Your task to perform on an android device: toggle translation in the chrome app Image 0: 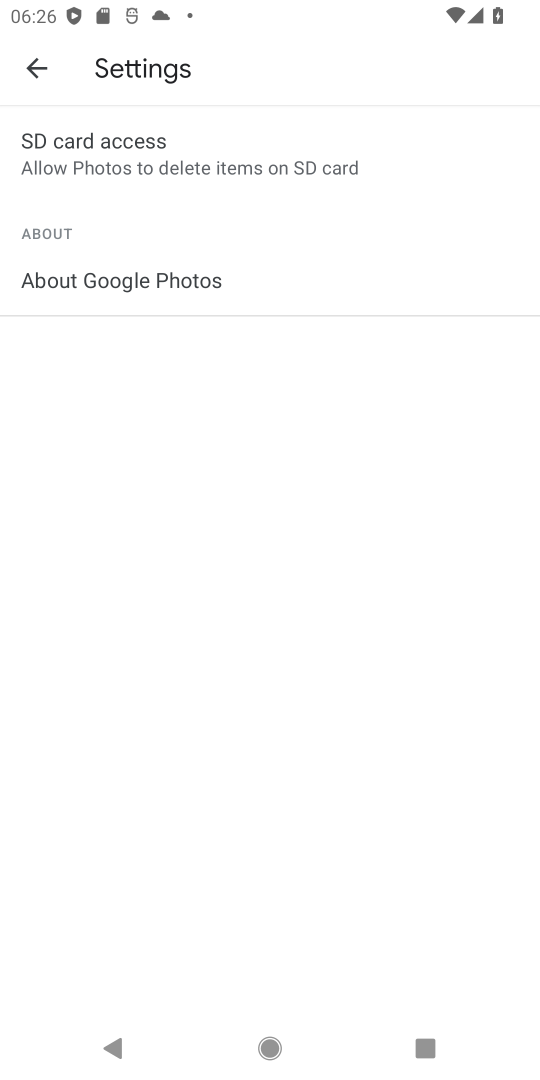
Step 0: press home button
Your task to perform on an android device: toggle translation in the chrome app Image 1: 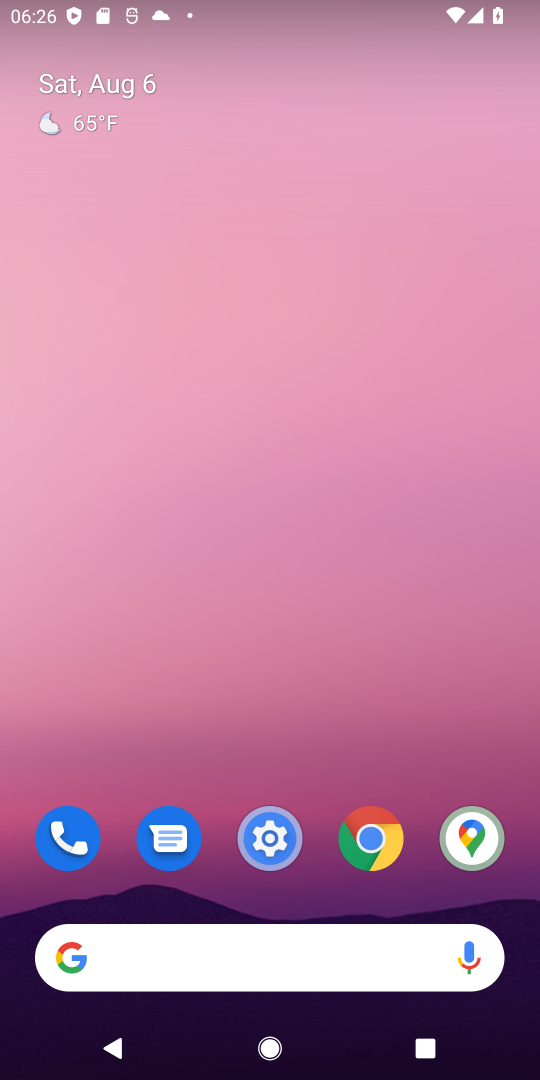
Step 1: drag from (225, 377) to (222, 197)
Your task to perform on an android device: toggle translation in the chrome app Image 2: 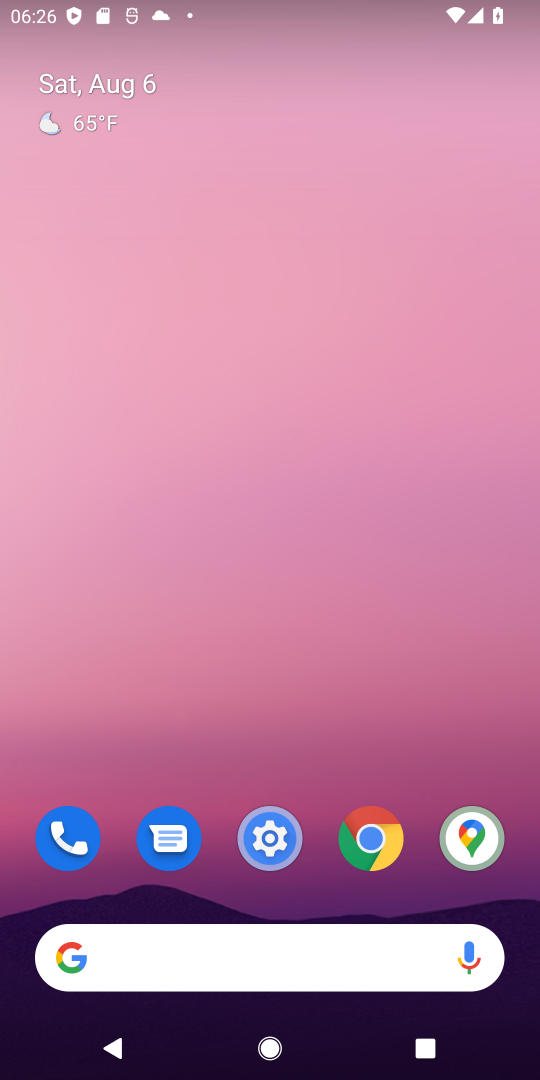
Step 2: drag from (332, 639) to (355, 26)
Your task to perform on an android device: toggle translation in the chrome app Image 3: 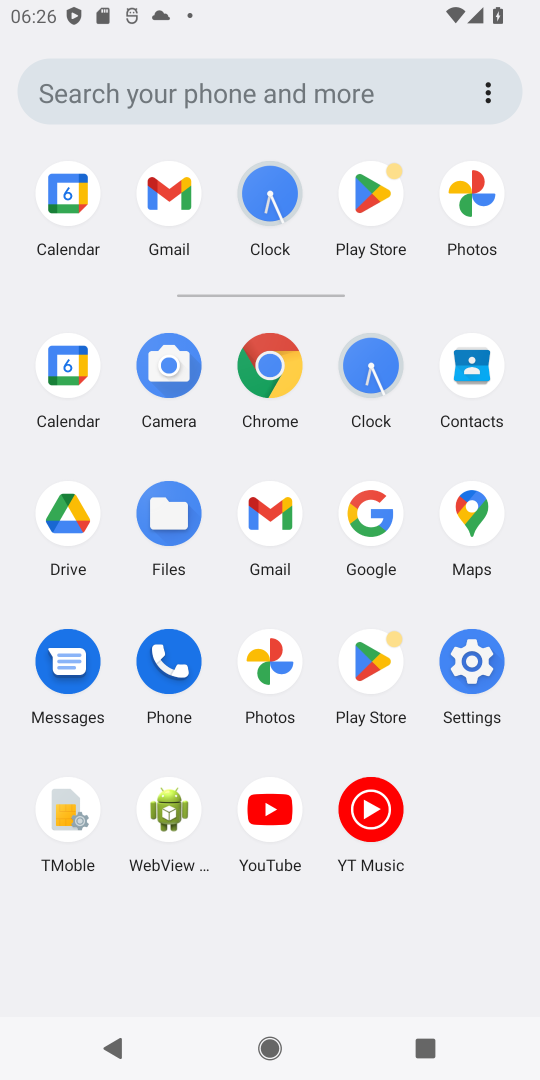
Step 3: click (277, 382)
Your task to perform on an android device: toggle translation in the chrome app Image 4: 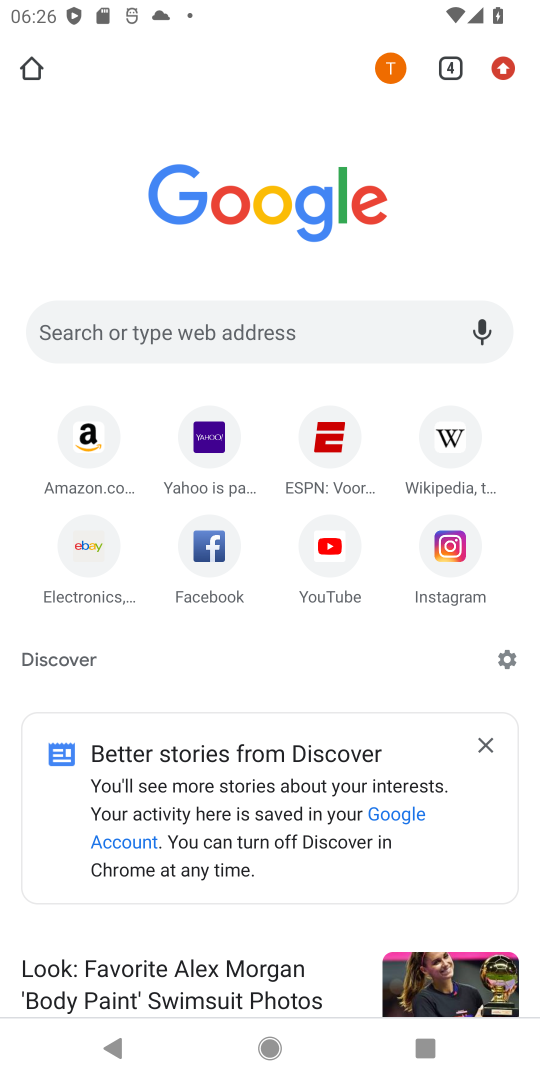
Step 4: click (510, 76)
Your task to perform on an android device: toggle translation in the chrome app Image 5: 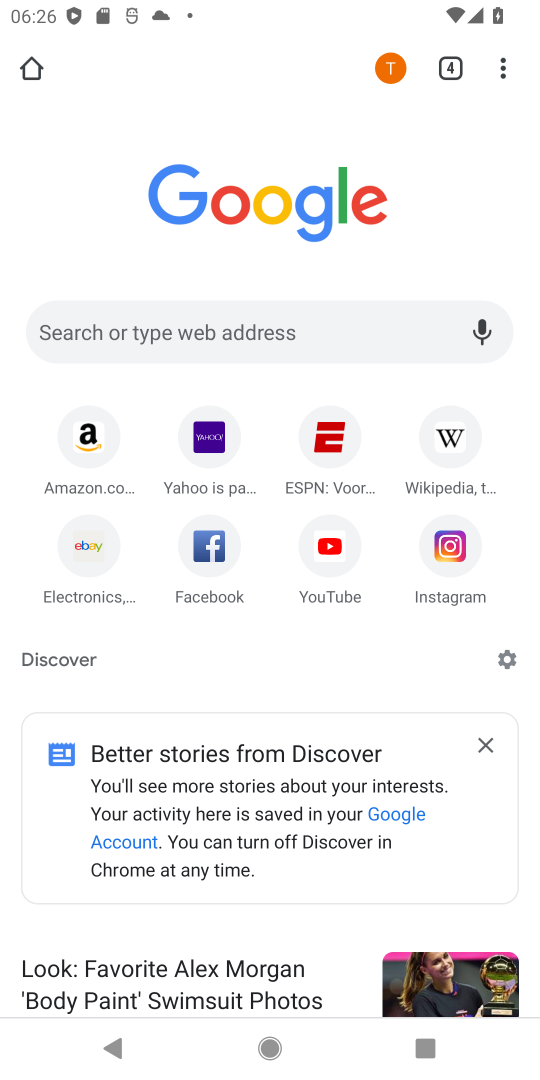
Step 5: click (503, 77)
Your task to perform on an android device: toggle translation in the chrome app Image 6: 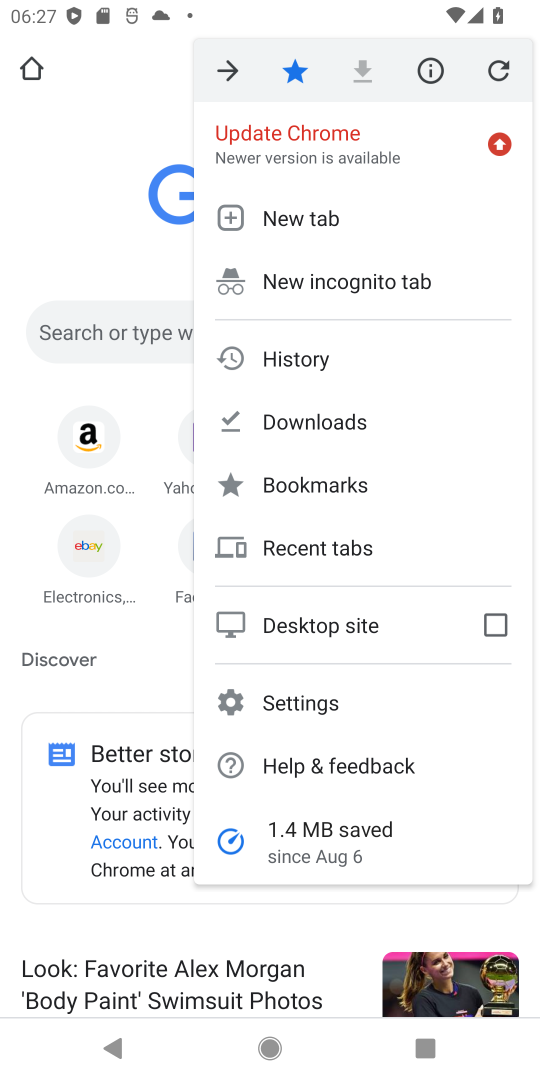
Step 6: click (291, 691)
Your task to perform on an android device: toggle translation in the chrome app Image 7: 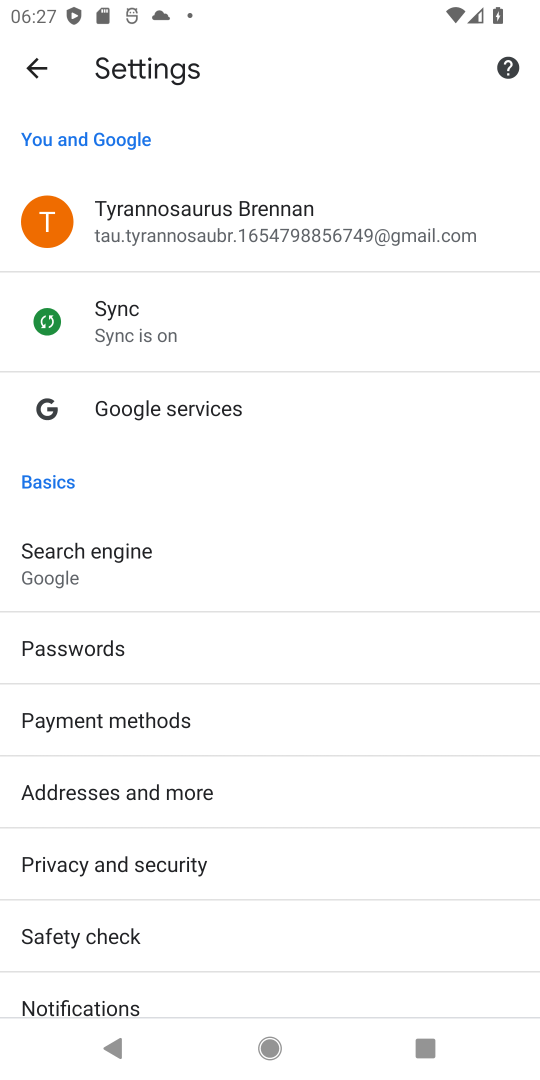
Step 7: drag from (286, 909) to (286, 344)
Your task to perform on an android device: toggle translation in the chrome app Image 8: 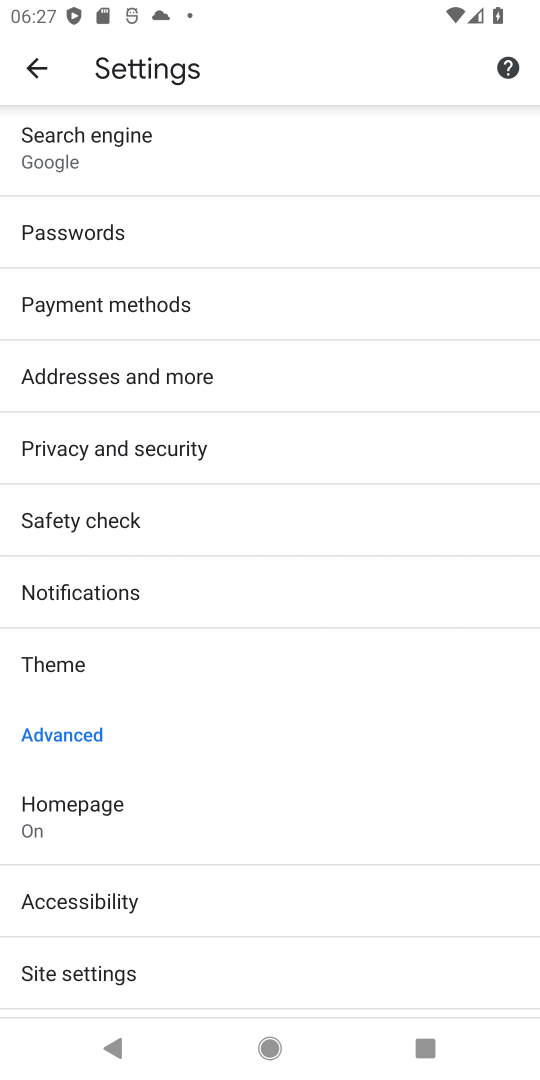
Step 8: drag from (221, 664) to (266, 293)
Your task to perform on an android device: toggle translation in the chrome app Image 9: 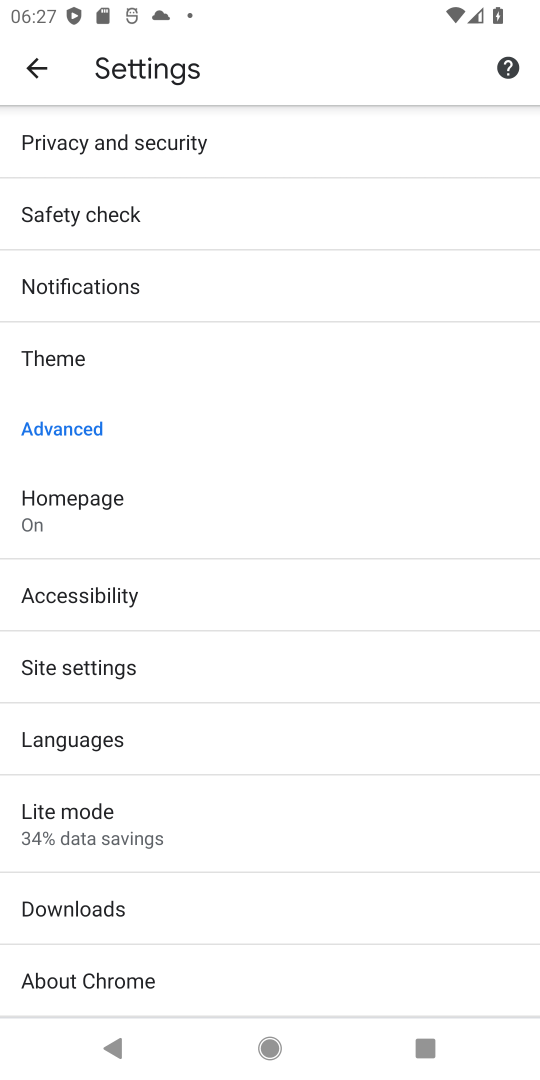
Step 9: click (114, 747)
Your task to perform on an android device: toggle translation in the chrome app Image 10: 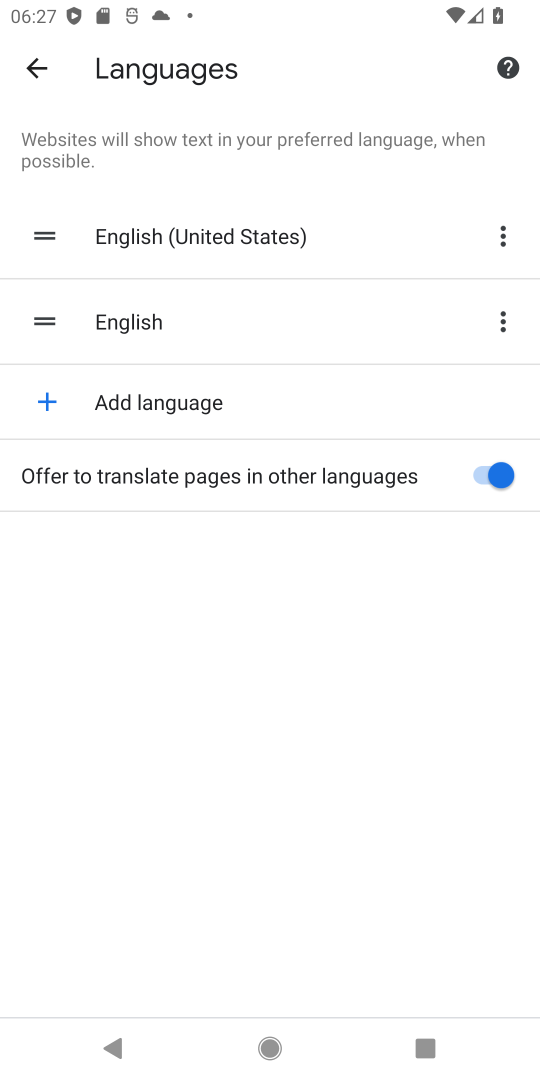
Step 10: click (503, 486)
Your task to perform on an android device: toggle translation in the chrome app Image 11: 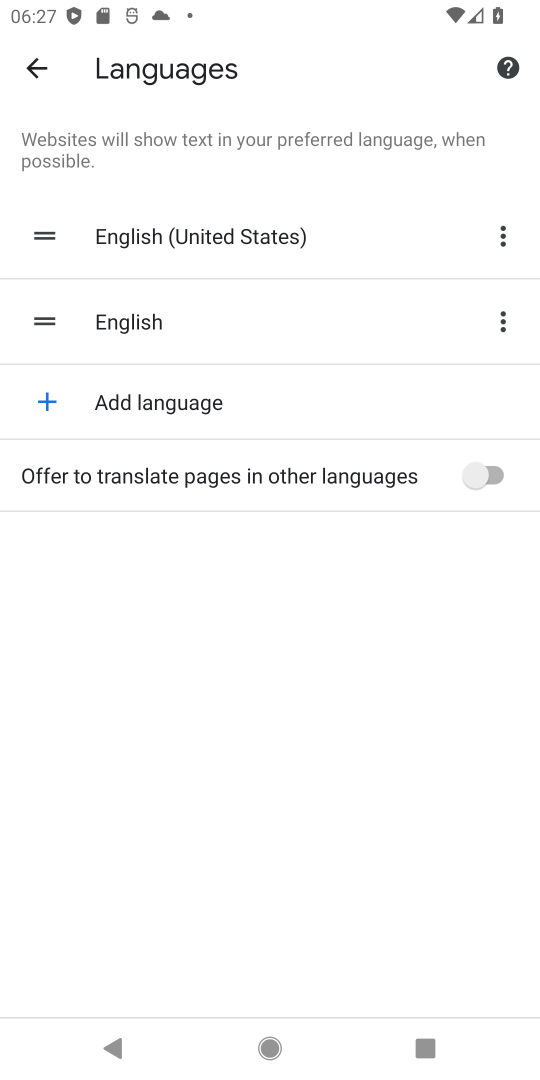
Step 11: task complete